Your task to perform on an android device: turn off notifications settings in the gmail app Image 0: 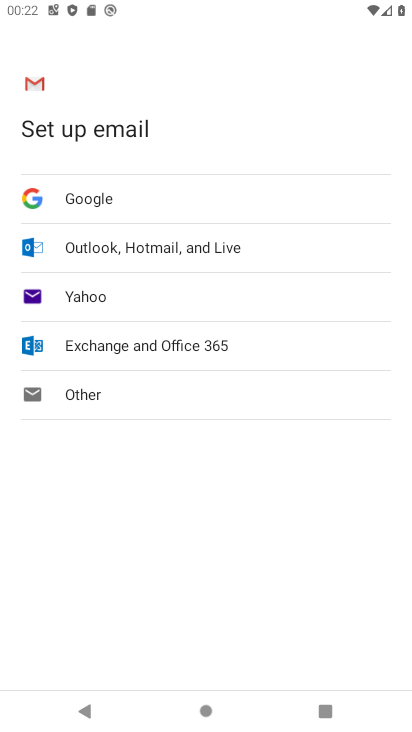
Step 0: drag from (224, 600) to (321, 356)
Your task to perform on an android device: turn off notifications settings in the gmail app Image 1: 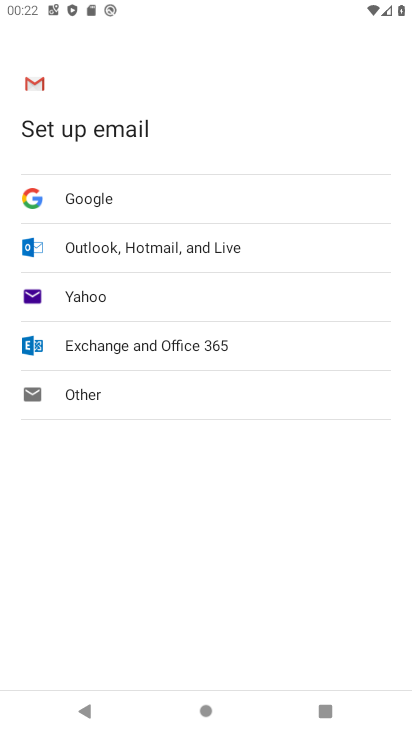
Step 1: press home button
Your task to perform on an android device: turn off notifications settings in the gmail app Image 2: 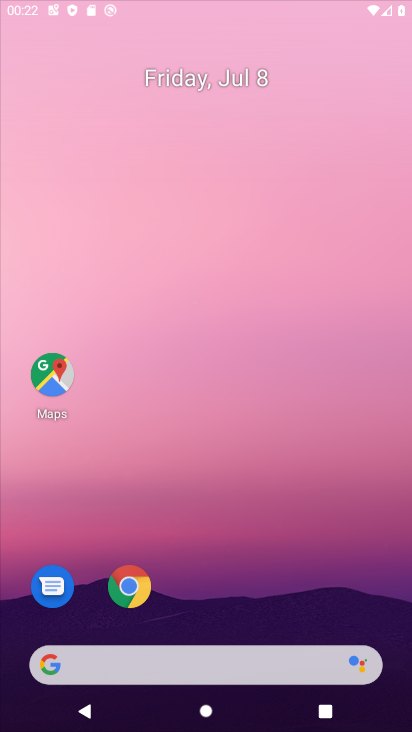
Step 2: drag from (189, 612) to (257, 232)
Your task to perform on an android device: turn off notifications settings in the gmail app Image 3: 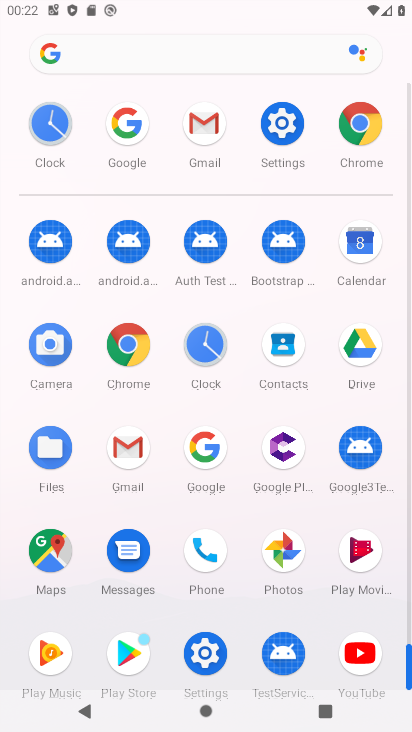
Step 3: click (127, 447)
Your task to perform on an android device: turn off notifications settings in the gmail app Image 4: 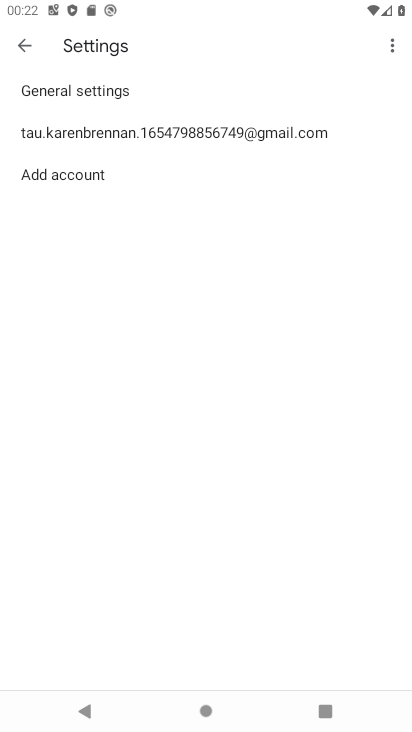
Step 4: click (229, 128)
Your task to perform on an android device: turn off notifications settings in the gmail app Image 5: 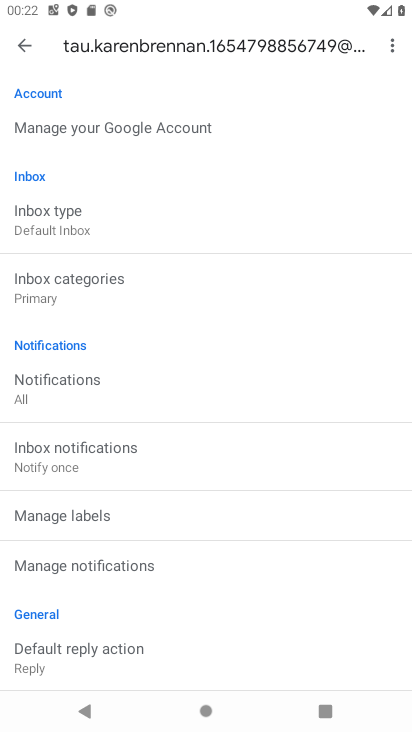
Step 5: drag from (193, 545) to (263, 211)
Your task to perform on an android device: turn off notifications settings in the gmail app Image 6: 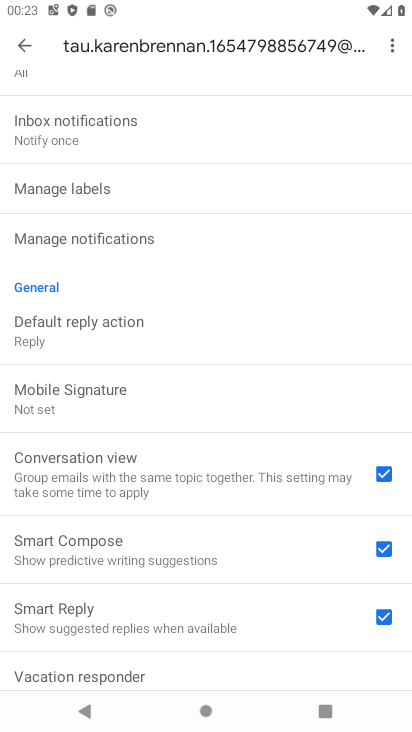
Step 6: click (127, 231)
Your task to perform on an android device: turn off notifications settings in the gmail app Image 7: 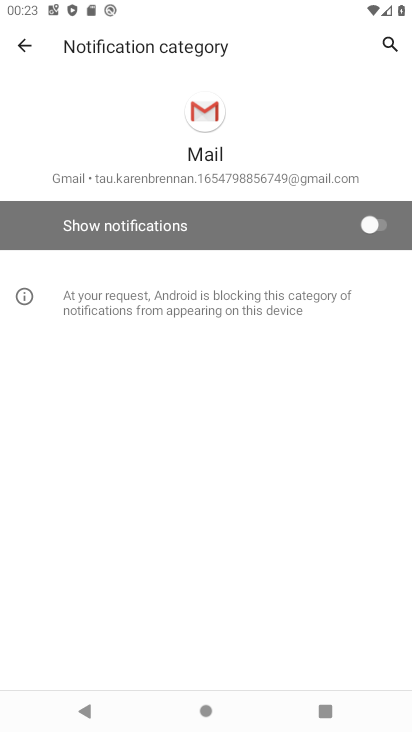
Step 7: click (319, 234)
Your task to perform on an android device: turn off notifications settings in the gmail app Image 8: 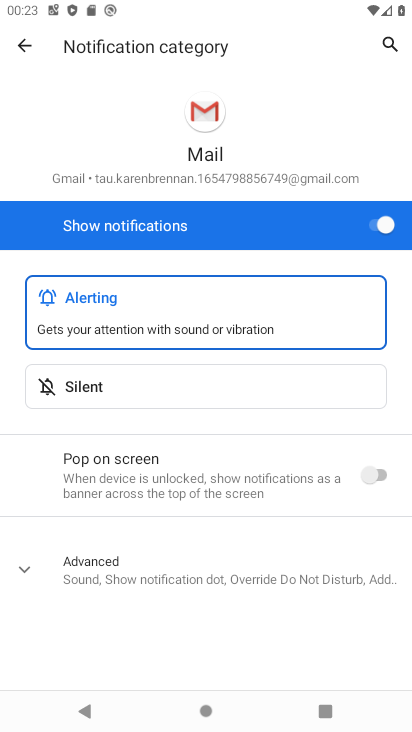
Step 8: task complete